Your task to perform on an android device: turn off improve location accuracy Image 0: 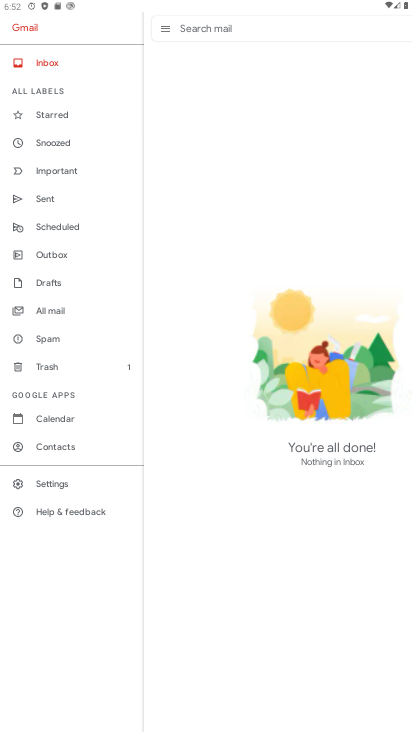
Step 0: press home button
Your task to perform on an android device: turn off improve location accuracy Image 1: 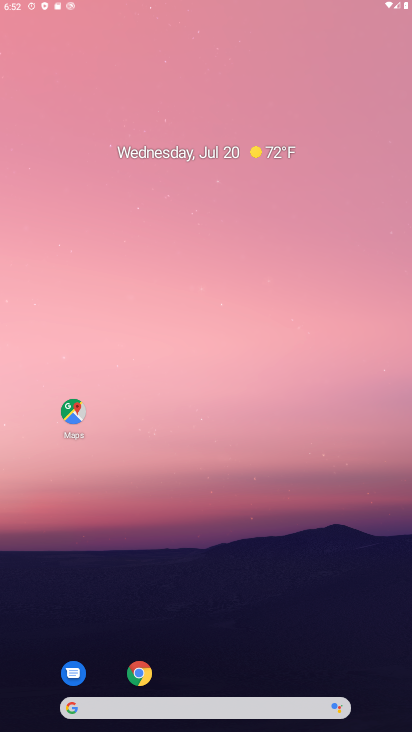
Step 1: drag from (396, 704) to (225, 1)
Your task to perform on an android device: turn off improve location accuracy Image 2: 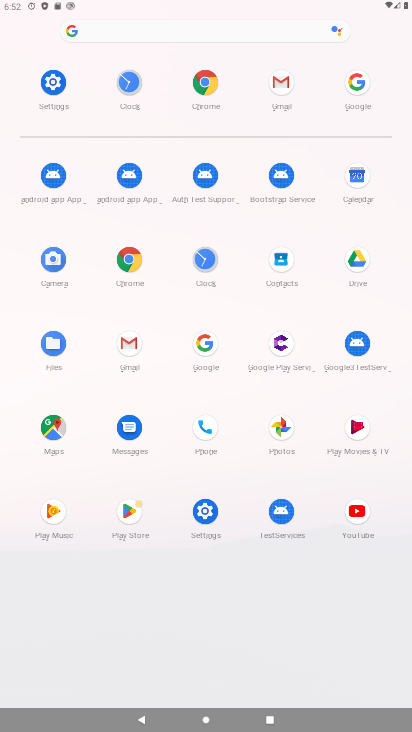
Step 2: click (201, 519)
Your task to perform on an android device: turn off improve location accuracy Image 3: 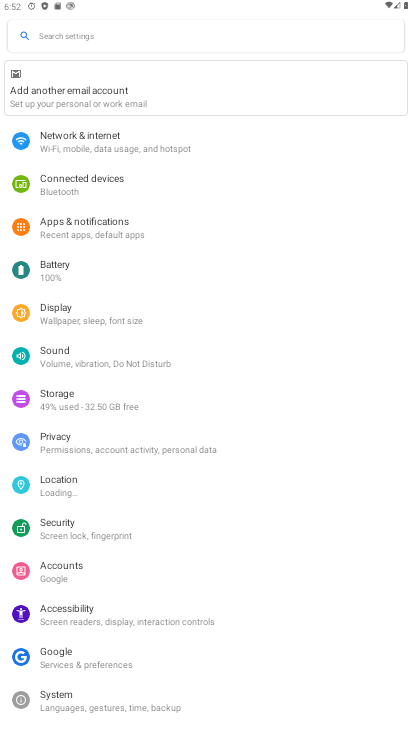
Step 3: click (72, 481)
Your task to perform on an android device: turn off improve location accuracy Image 4: 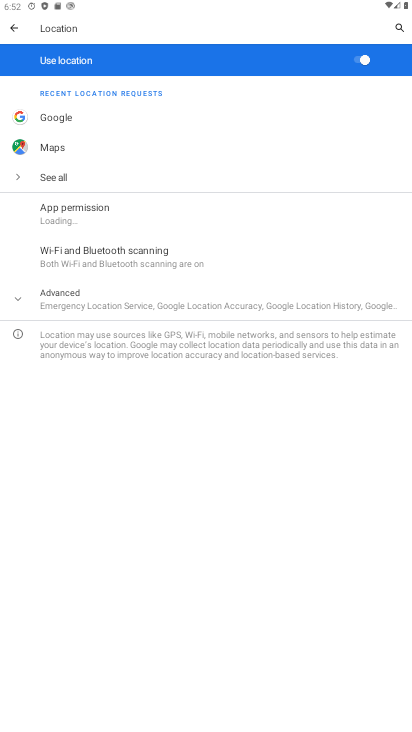
Step 4: click (146, 313)
Your task to perform on an android device: turn off improve location accuracy Image 5: 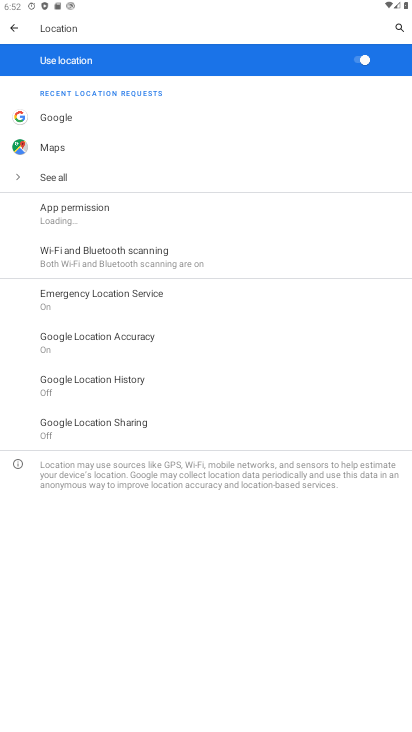
Step 5: click (89, 345)
Your task to perform on an android device: turn off improve location accuracy Image 6: 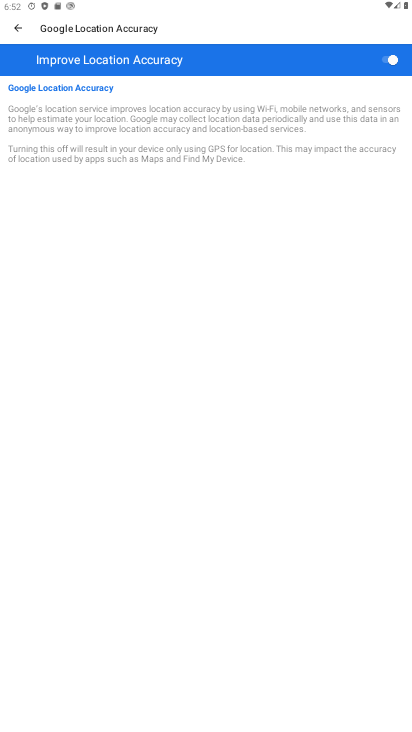
Step 6: click (375, 60)
Your task to perform on an android device: turn off improve location accuracy Image 7: 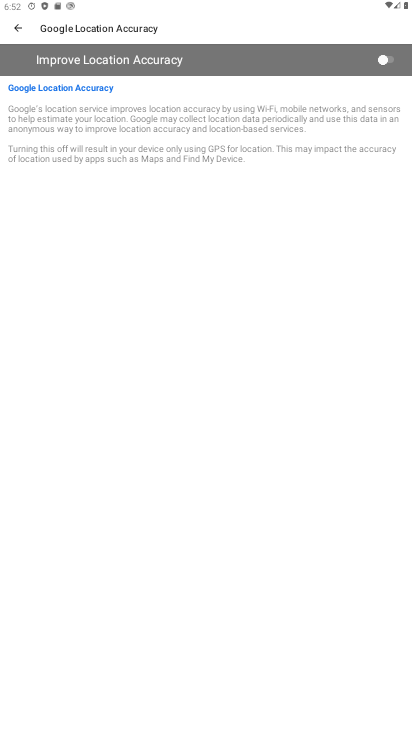
Step 7: task complete